Your task to perform on an android device: Open accessibility settings Image 0: 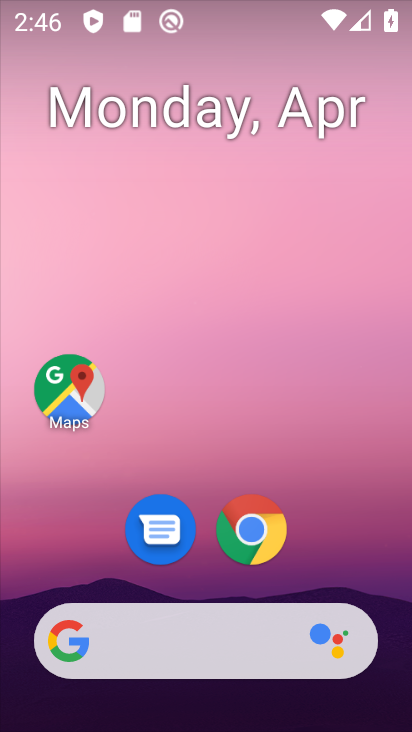
Step 0: drag from (300, 678) to (299, 133)
Your task to perform on an android device: Open accessibility settings Image 1: 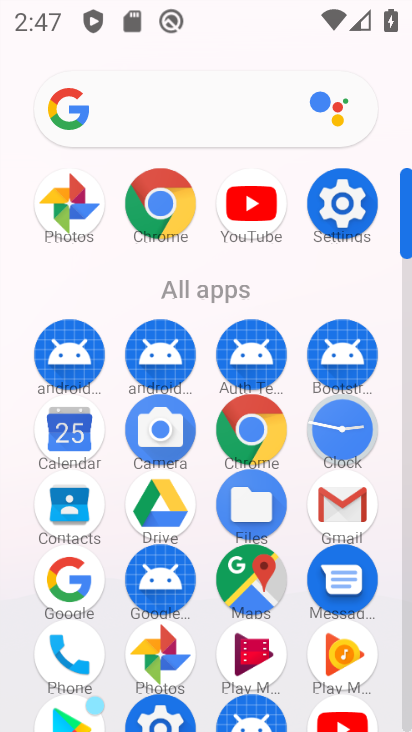
Step 1: click (365, 200)
Your task to perform on an android device: Open accessibility settings Image 2: 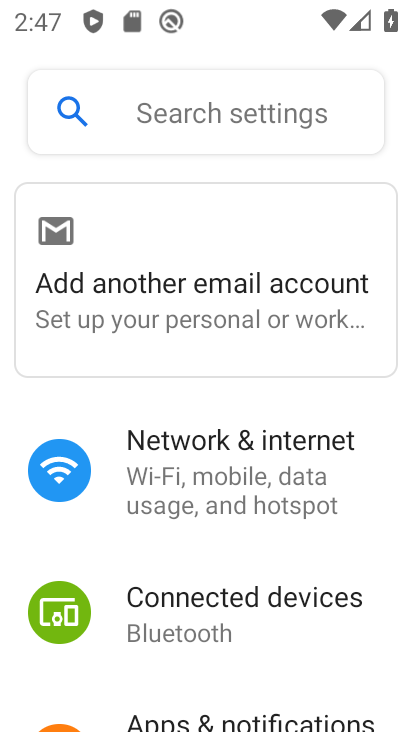
Step 2: click (168, 119)
Your task to perform on an android device: Open accessibility settings Image 3: 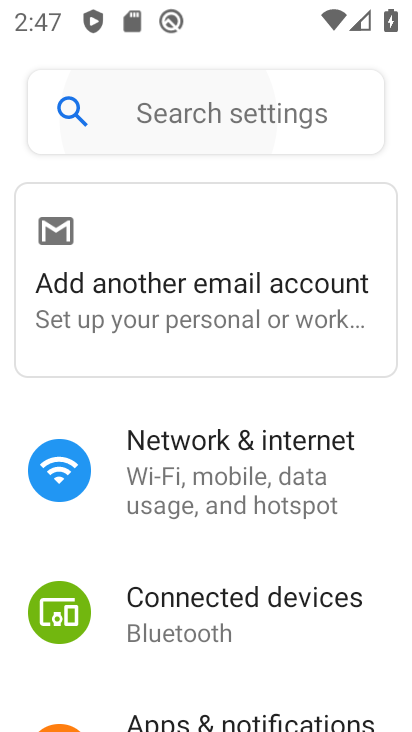
Step 3: click (167, 118)
Your task to perform on an android device: Open accessibility settings Image 4: 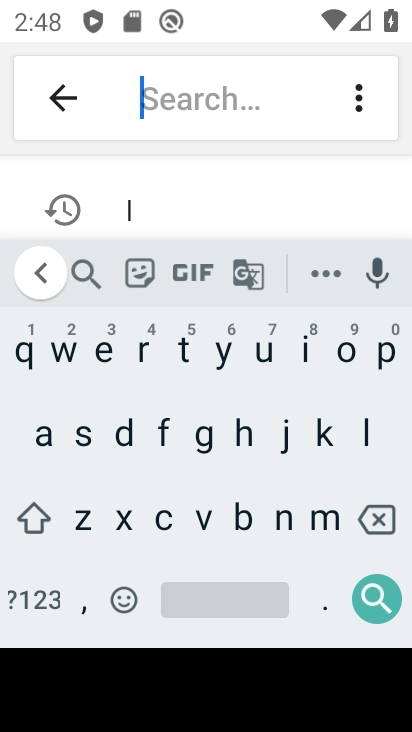
Step 4: click (37, 433)
Your task to perform on an android device: Open accessibility settings Image 5: 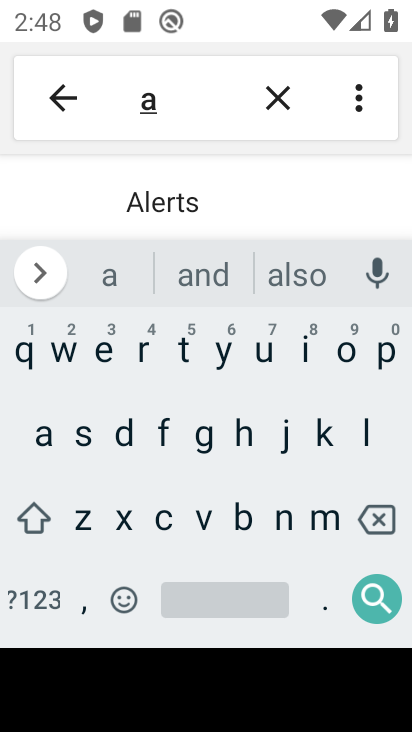
Step 5: click (160, 510)
Your task to perform on an android device: Open accessibility settings Image 6: 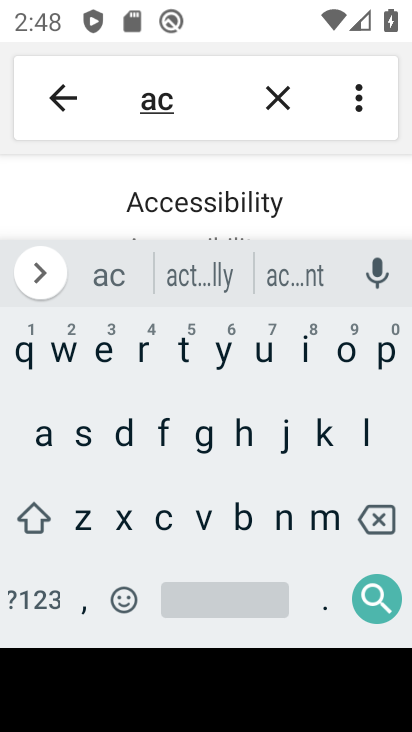
Step 6: click (221, 205)
Your task to perform on an android device: Open accessibility settings Image 7: 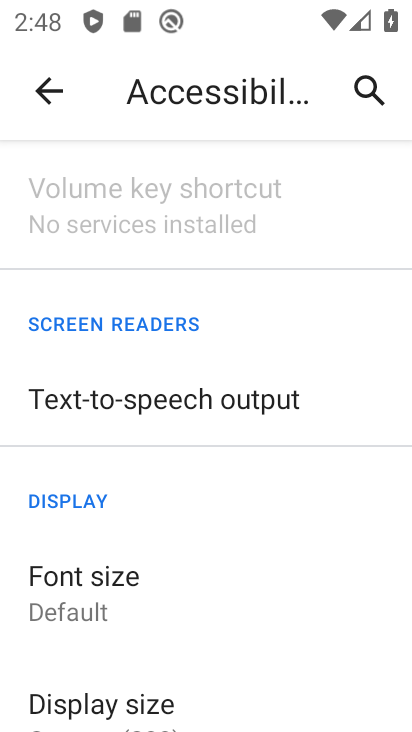
Step 7: task complete